Your task to perform on an android device: change your default location settings in chrome Image 0: 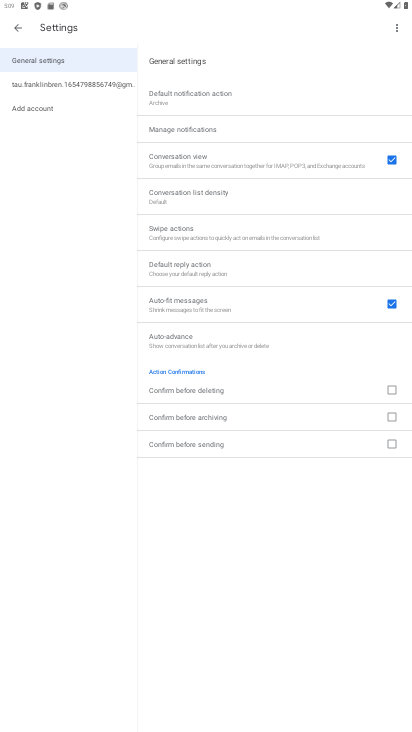
Step 0: press home button
Your task to perform on an android device: change your default location settings in chrome Image 1: 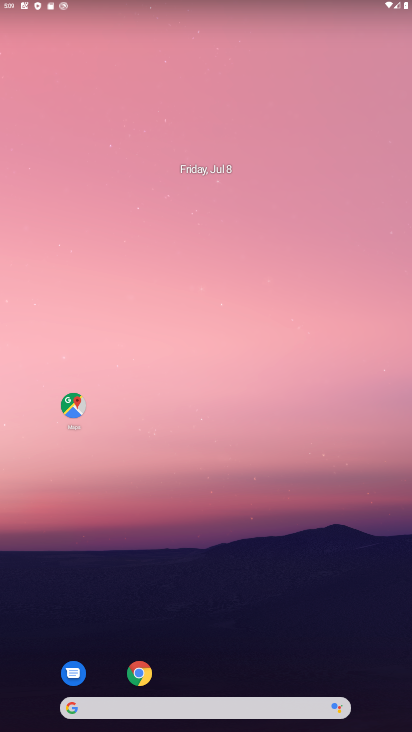
Step 1: click (140, 674)
Your task to perform on an android device: change your default location settings in chrome Image 2: 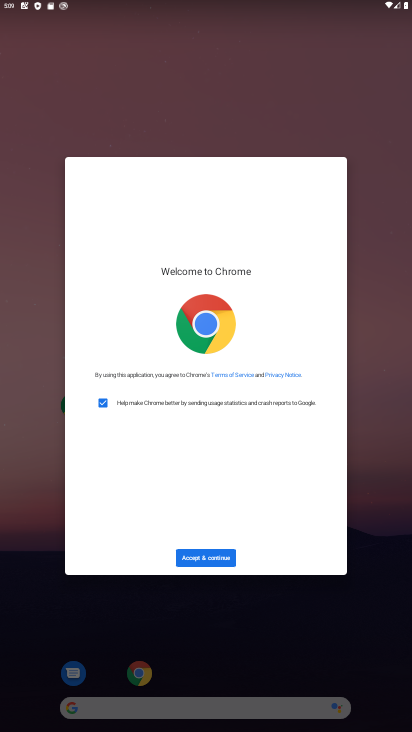
Step 2: click (201, 558)
Your task to perform on an android device: change your default location settings in chrome Image 3: 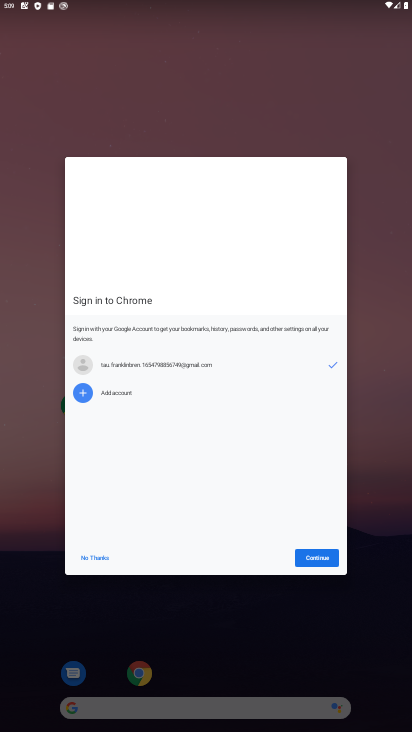
Step 3: click (321, 558)
Your task to perform on an android device: change your default location settings in chrome Image 4: 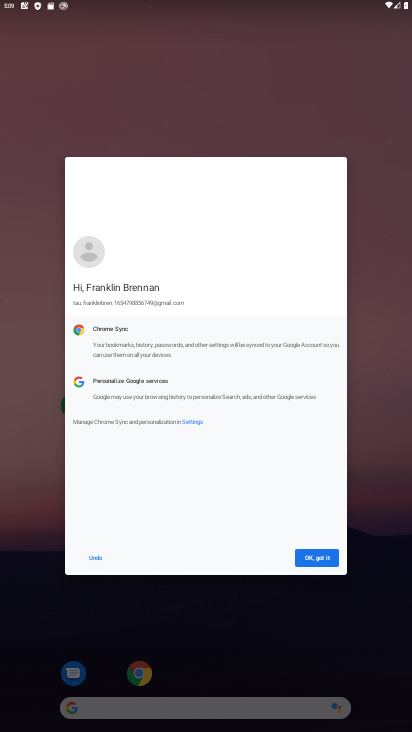
Step 4: click (321, 558)
Your task to perform on an android device: change your default location settings in chrome Image 5: 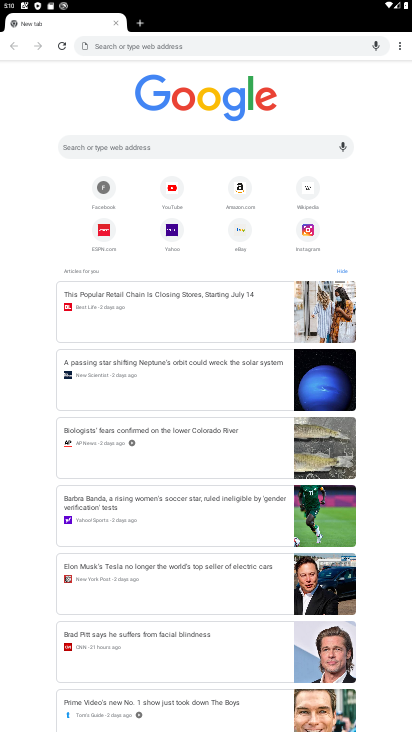
Step 5: click (400, 52)
Your task to perform on an android device: change your default location settings in chrome Image 6: 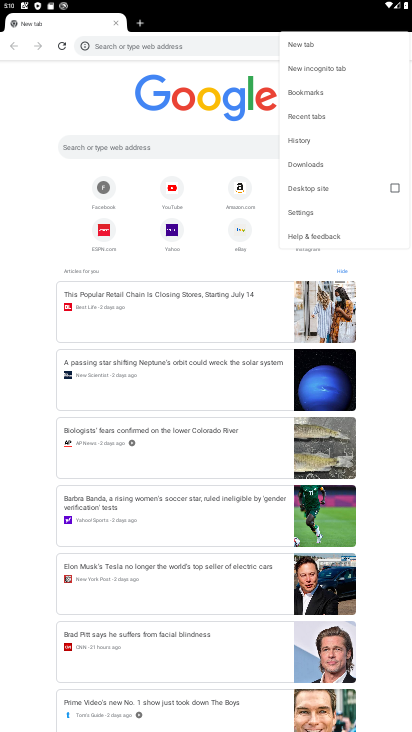
Step 6: click (306, 207)
Your task to perform on an android device: change your default location settings in chrome Image 7: 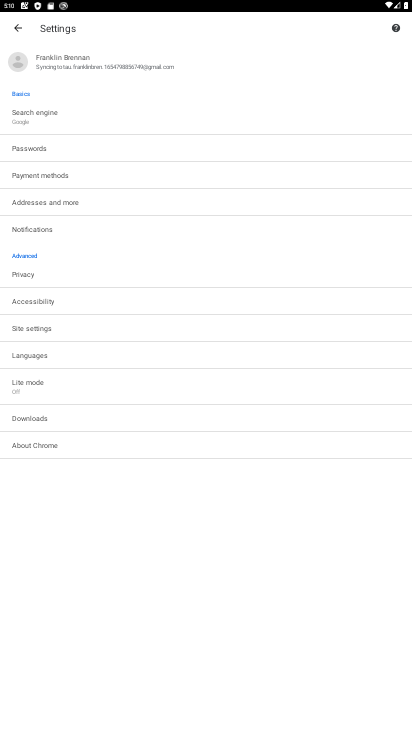
Step 7: click (41, 326)
Your task to perform on an android device: change your default location settings in chrome Image 8: 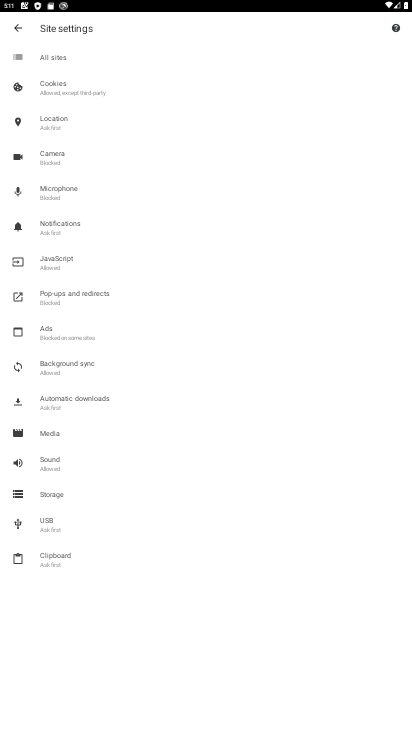
Step 8: click (61, 117)
Your task to perform on an android device: change your default location settings in chrome Image 9: 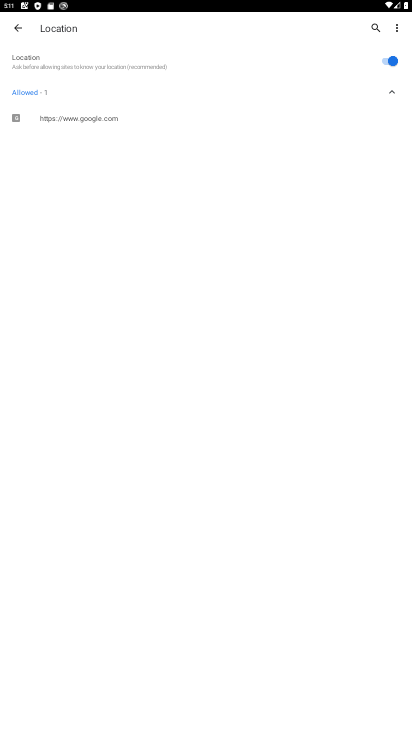
Step 9: click (383, 59)
Your task to perform on an android device: change your default location settings in chrome Image 10: 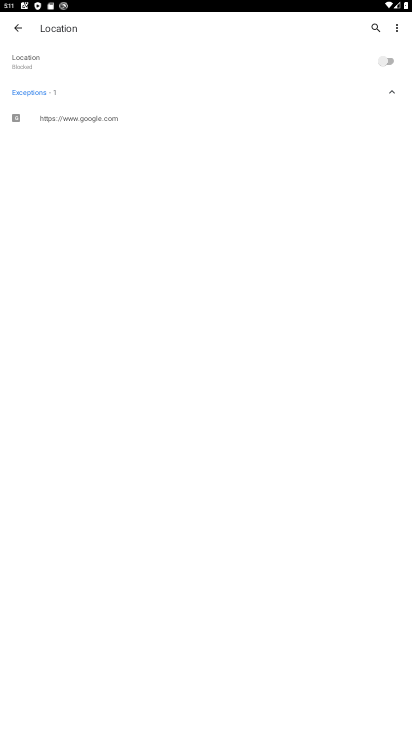
Step 10: task complete